Your task to perform on an android device: toggle javascript in the chrome app Image 0: 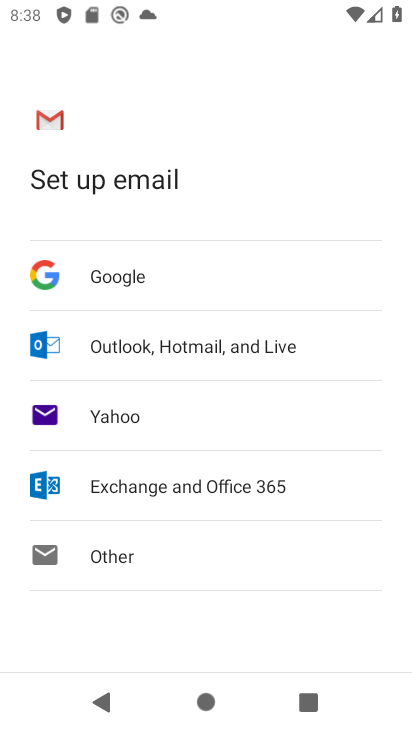
Step 0: drag from (371, 461) to (364, 341)
Your task to perform on an android device: toggle javascript in the chrome app Image 1: 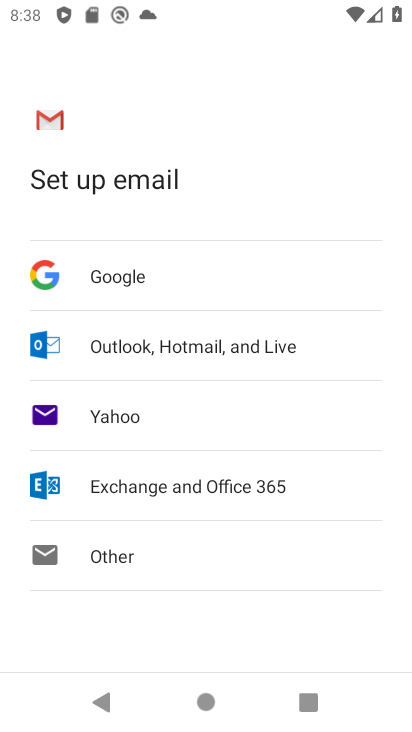
Step 1: press home button
Your task to perform on an android device: toggle javascript in the chrome app Image 2: 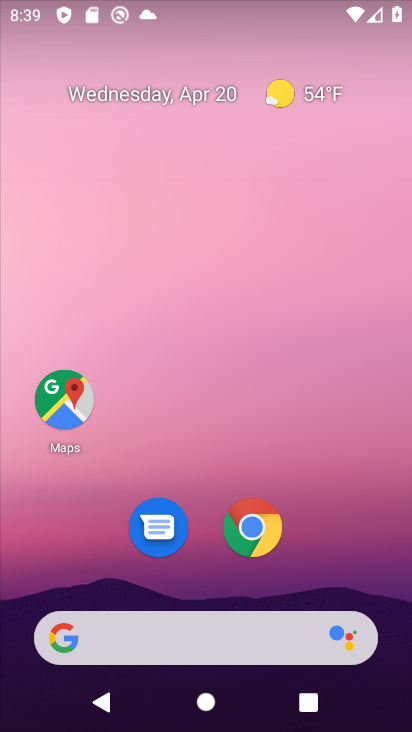
Step 2: click (264, 518)
Your task to perform on an android device: toggle javascript in the chrome app Image 3: 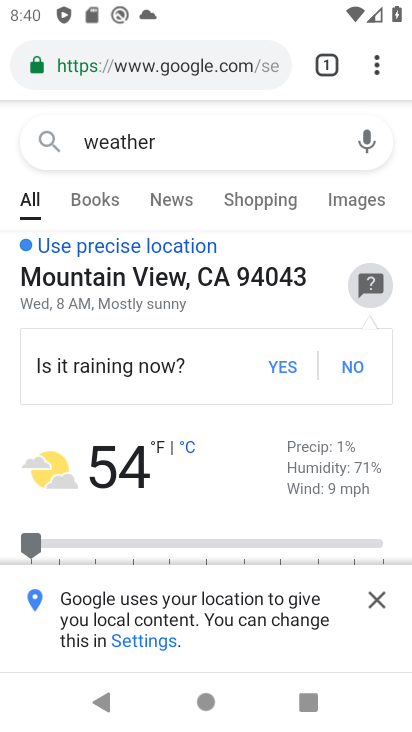
Step 3: drag from (372, 76) to (251, 567)
Your task to perform on an android device: toggle javascript in the chrome app Image 4: 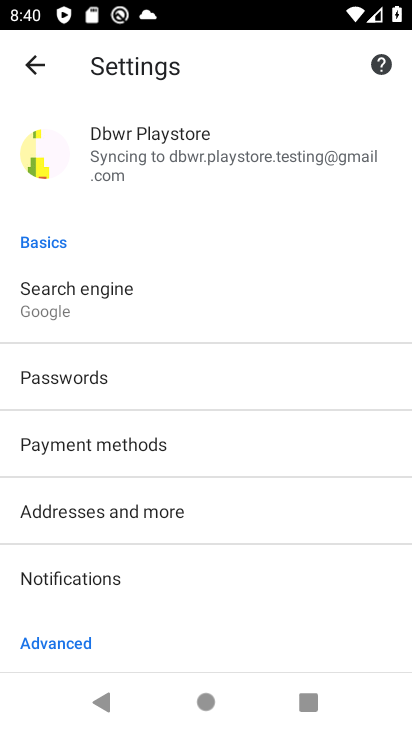
Step 4: drag from (157, 614) to (151, 72)
Your task to perform on an android device: toggle javascript in the chrome app Image 5: 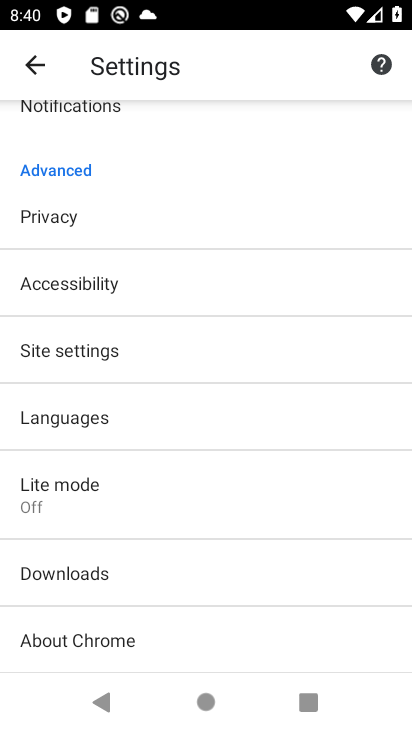
Step 5: click (134, 353)
Your task to perform on an android device: toggle javascript in the chrome app Image 6: 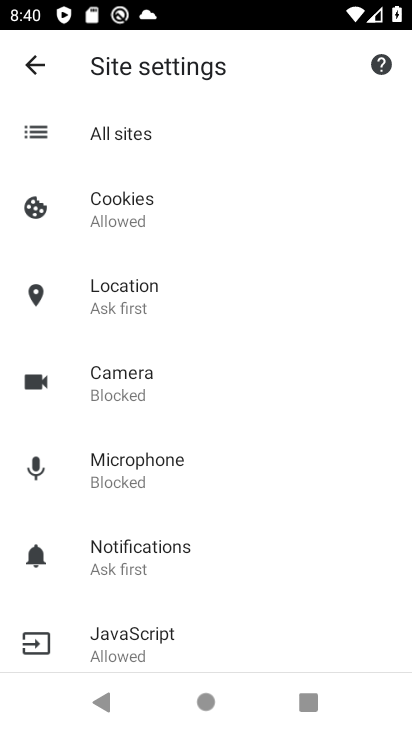
Step 6: click (162, 624)
Your task to perform on an android device: toggle javascript in the chrome app Image 7: 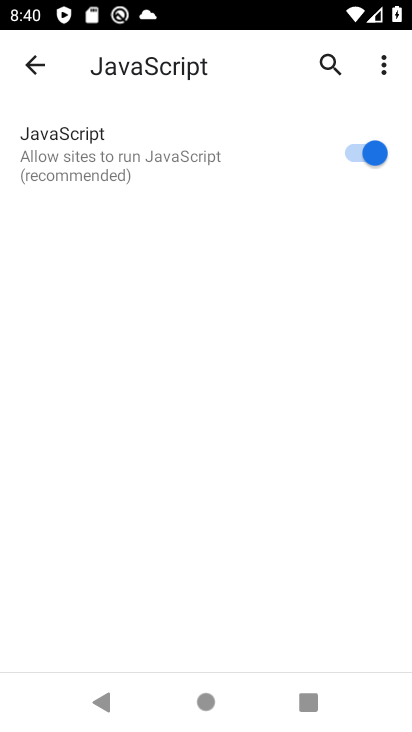
Step 7: click (346, 161)
Your task to perform on an android device: toggle javascript in the chrome app Image 8: 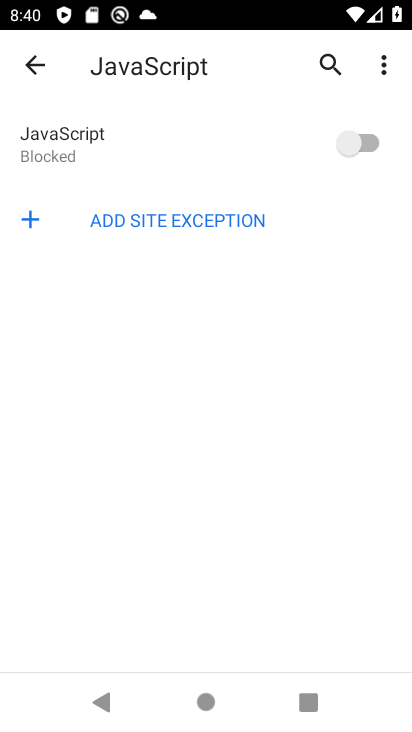
Step 8: task complete